Your task to perform on an android device: add a contact Image 0: 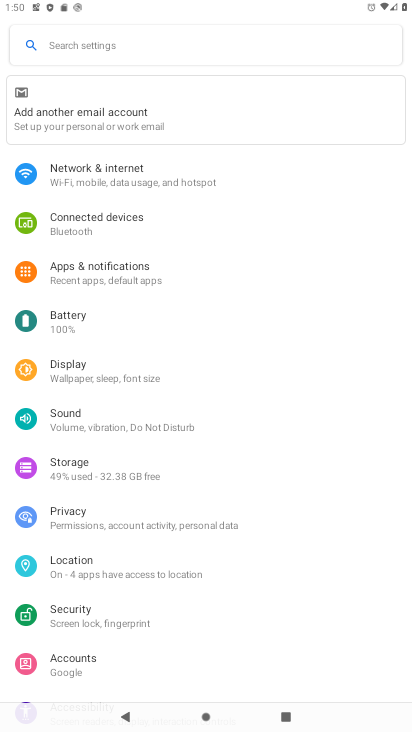
Step 0: press home button
Your task to perform on an android device: add a contact Image 1: 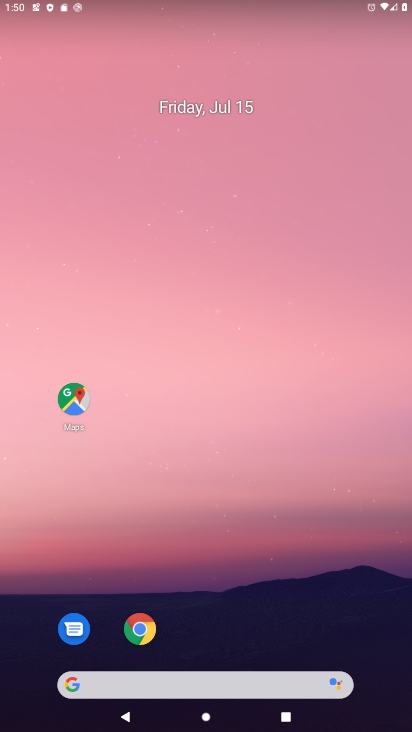
Step 1: drag from (255, 526) to (246, 66)
Your task to perform on an android device: add a contact Image 2: 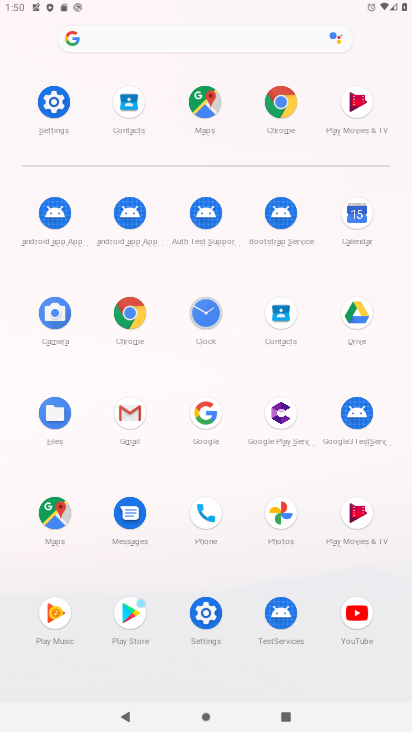
Step 2: click (286, 316)
Your task to perform on an android device: add a contact Image 3: 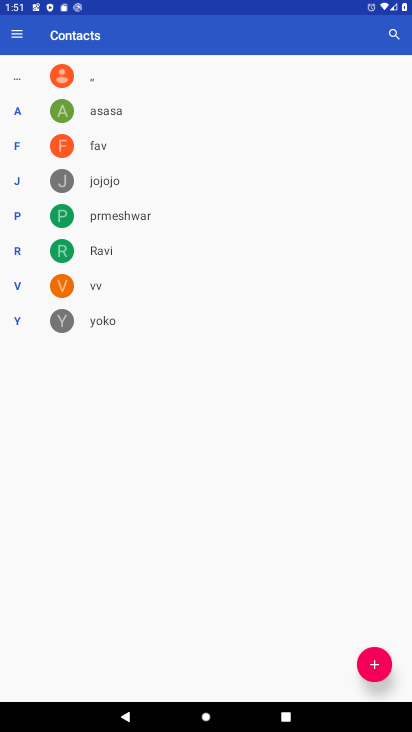
Step 3: click (381, 667)
Your task to perform on an android device: add a contact Image 4: 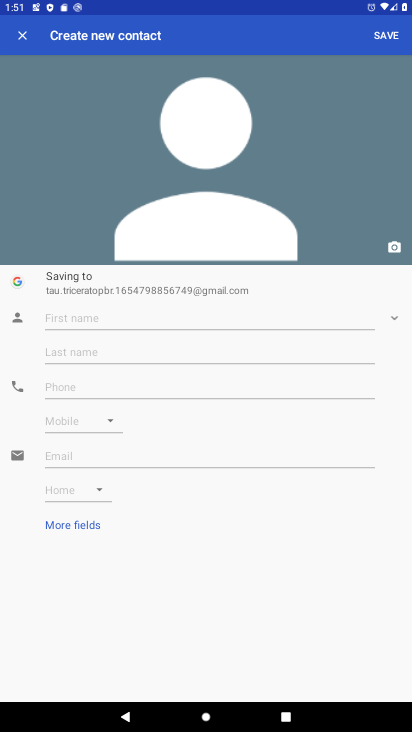
Step 4: click (252, 311)
Your task to perform on an android device: add a contact Image 5: 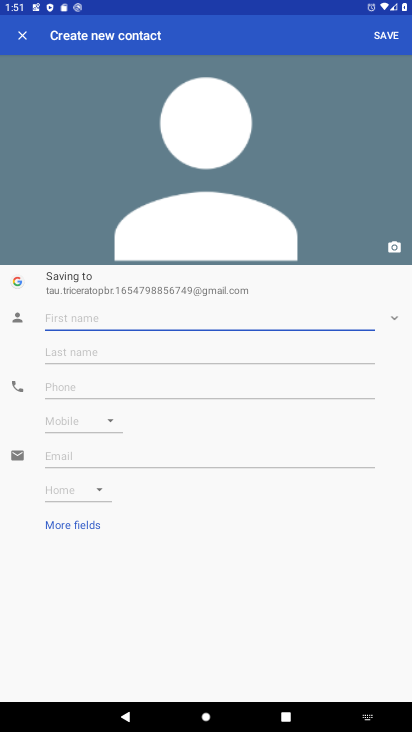
Step 5: type "pujan"
Your task to perform on an android device: add a contact Image 6: 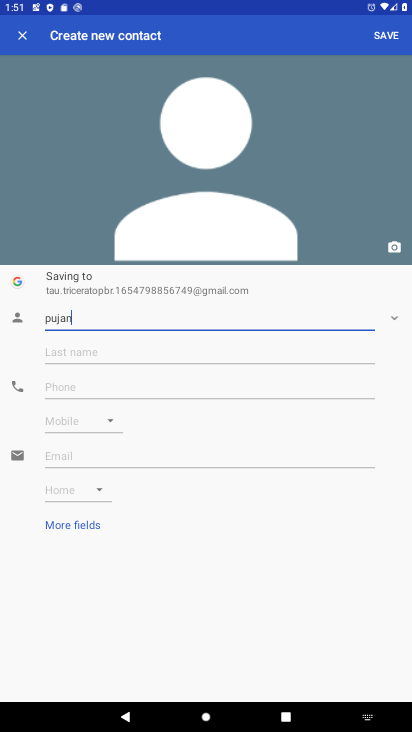
Step 6: click (376, 32)
Your task to perform on an android device: add a contact Image 7: 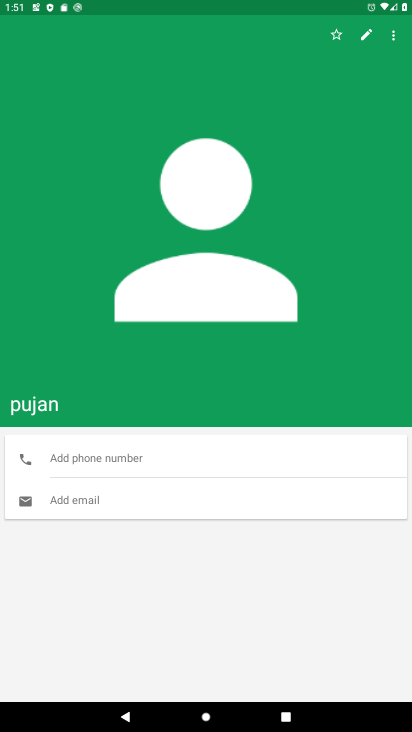
Step 7: task complete